Your task to perform on an android device: set an alarm Image 0: 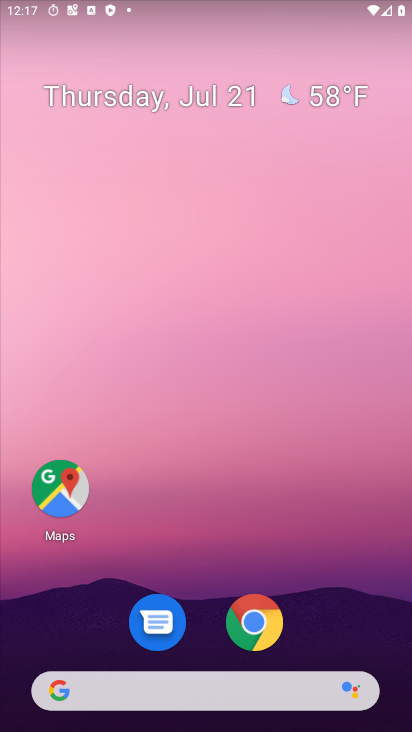
Step 0: drag from (29, 676) to (261, 5)
Your task to perform on an android device: set an alarm Image 1: 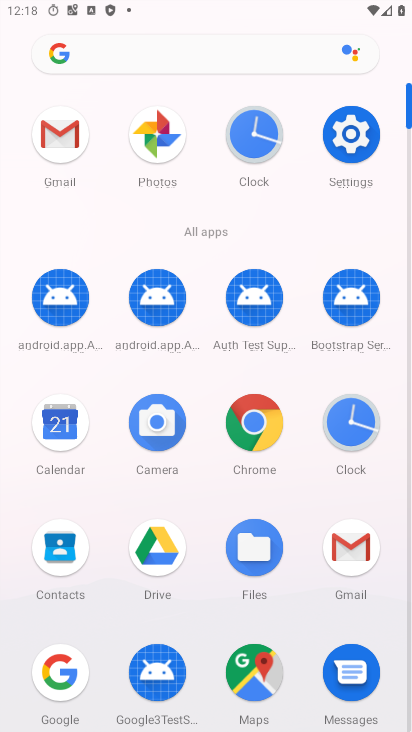
Step 1: click (350, 446)
Your task to perform on an android device: set an alarm Image 2: 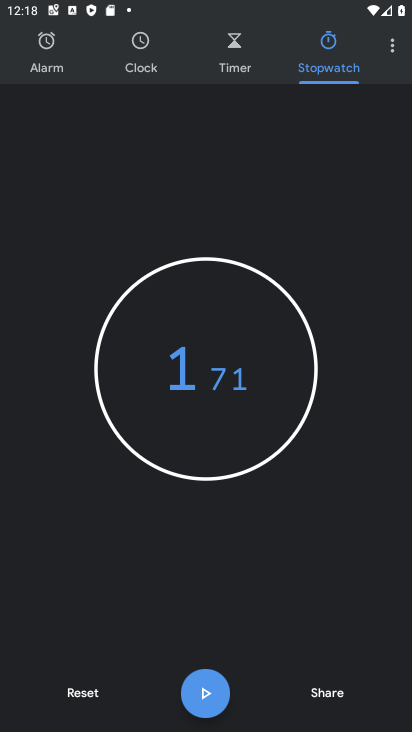
Step 2: click (44, 77)
Your task to perform on an android device: set an alarm Image 3: 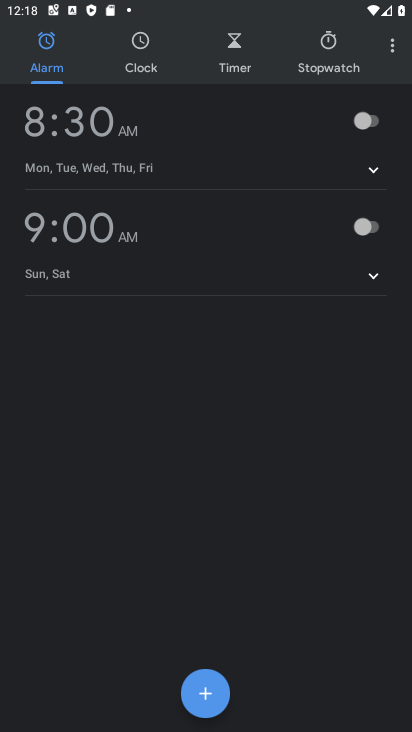
Step 3: click (379, 129)
Your task to perform on an android device: set an alarm Image 4: 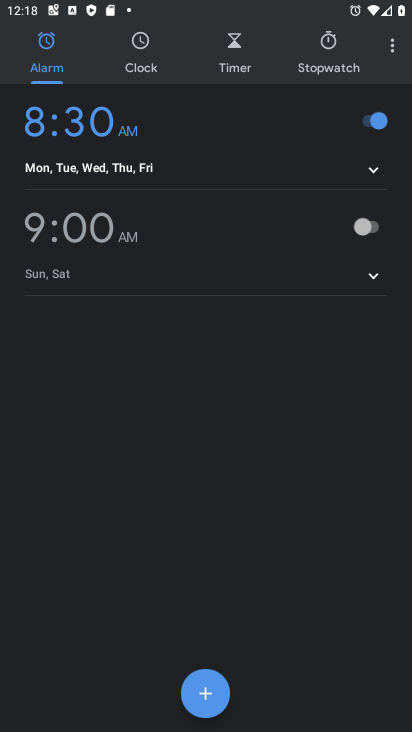
Step 4: task complete